Your task to perform on an android device: Open the Play Movies app and select the watchlist tab. Image 0: 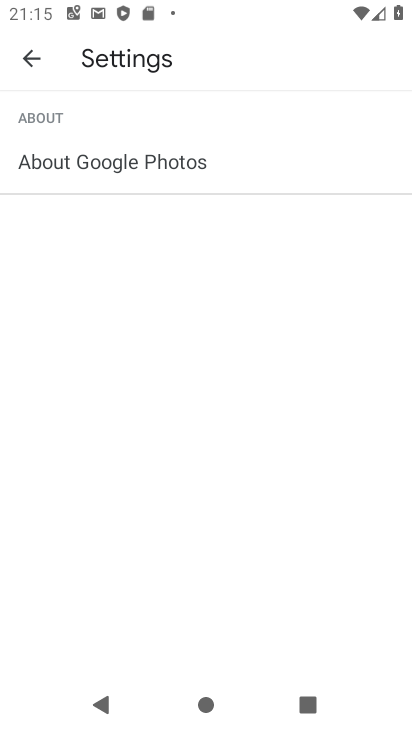
Step 0: press home button
Your task to perform on an android device: Open the Play Movies app and select the watchlist tab. Image 1: 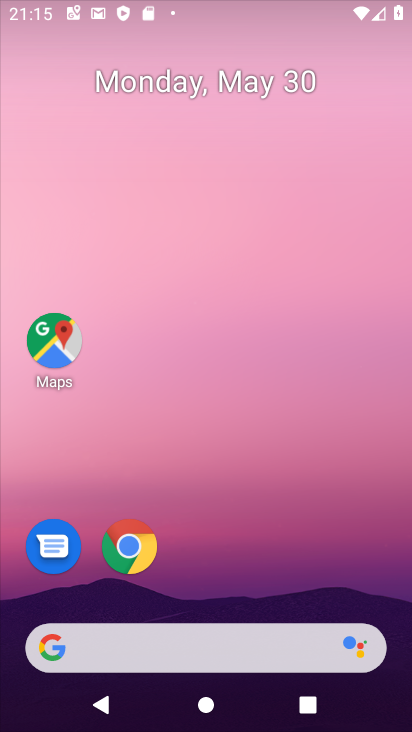
Step 1: drag from (402, 620) to (332, 103)
Your task to perform on an android device: Open the Play Movies app and select the watchlist tab. Image 2: 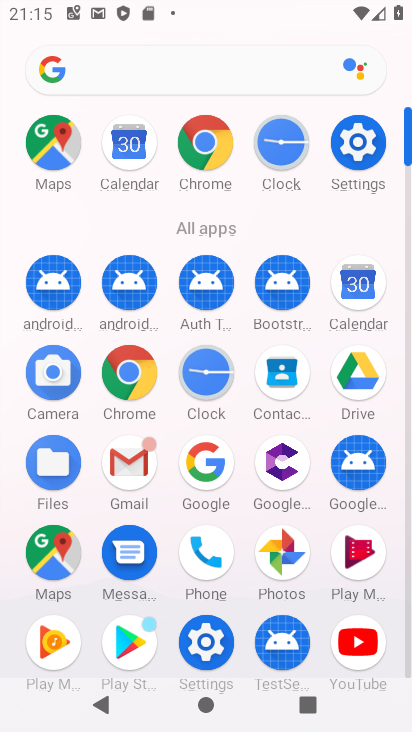
Step 2: drag from (282, 609) to (293, 338)
Your task to perform on an android device: Open the Play Movies app and select the watchlist tab. Image 3: 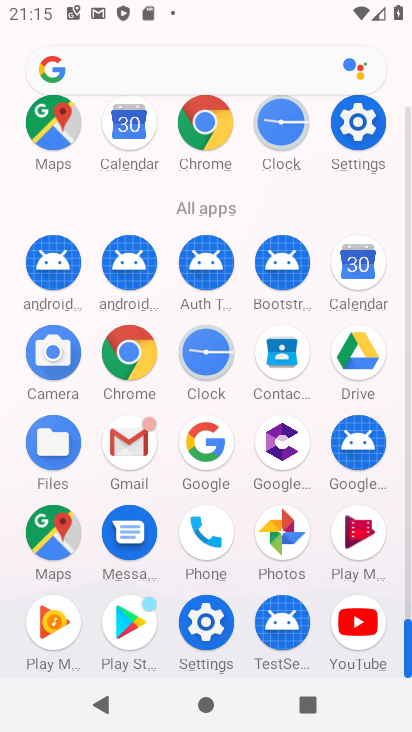
Step 3: click (352, 534)
Your task to perform on an android device: Open the Play Movies app and select the watchlist tab. Image 4: 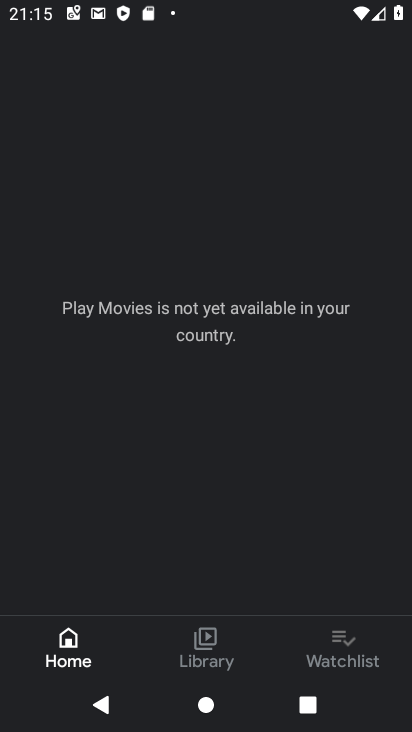
Step 4: click (374, 634)
Your task to perform on an android device: Open the Play Movies app and select the watchlist tab. Image 5: 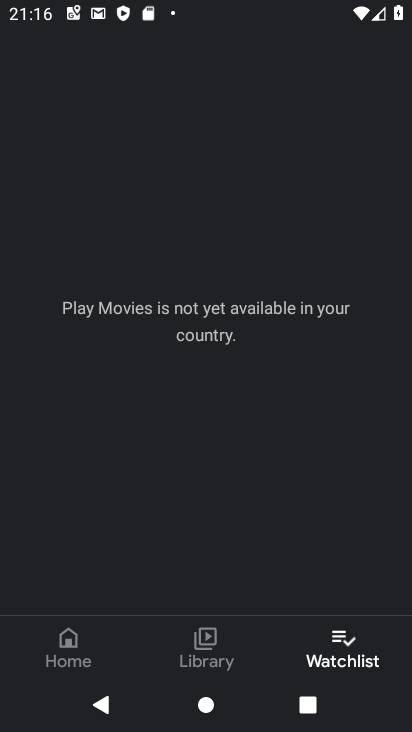
Step 5: task complete